Your task to perform on an android device: open app "DoorDash - Food Delivery" (install if not already installed), go to login, and select forgot password Image 0: 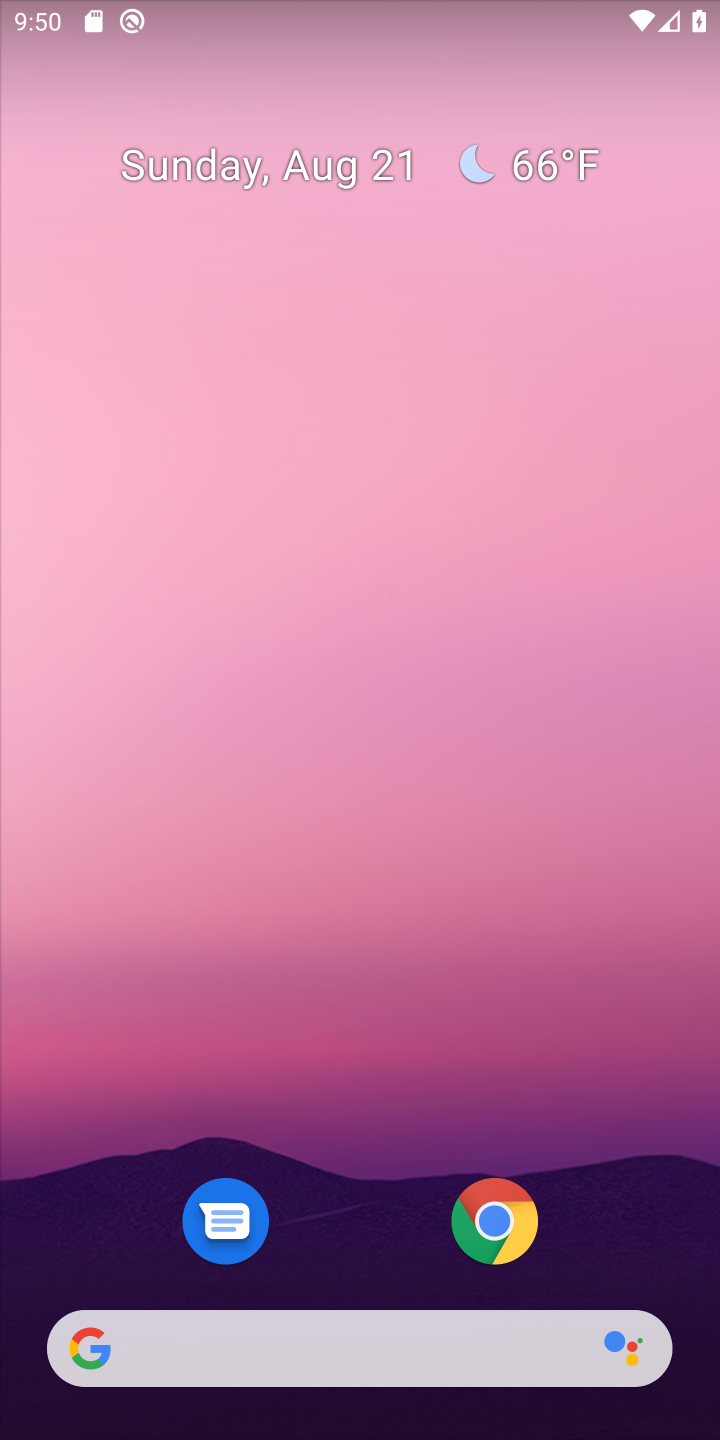
Step 0: drag from (354, 1136) to (491, 1)
Your task to perform on an android device: open app "DoorDash - Food Delivery" (install if not already installed), go to login, and select forgot password Image 1: 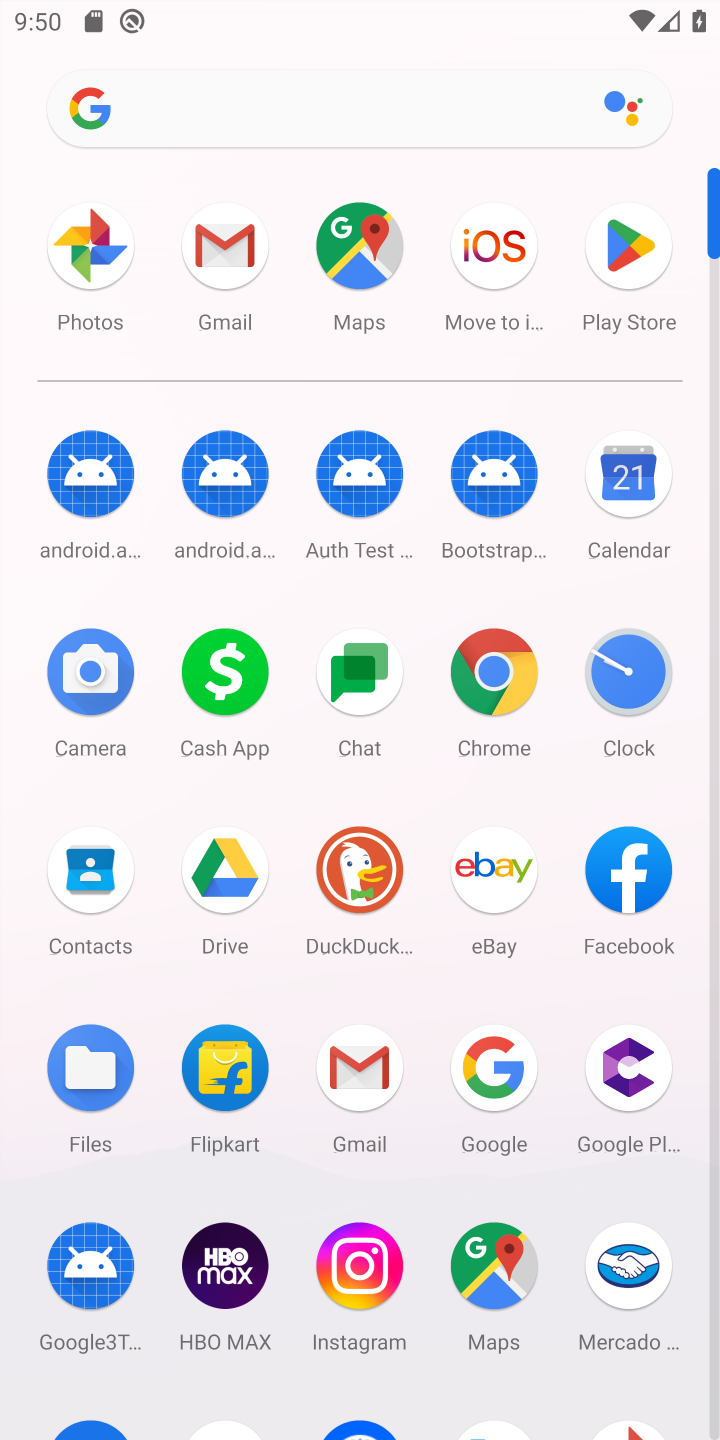
Step 1: click (620, 367)
Your task to perform on an android device: open app "DoorDash - Food Delivery" (install if not already installed), go to login, and select forgot password Image 2: 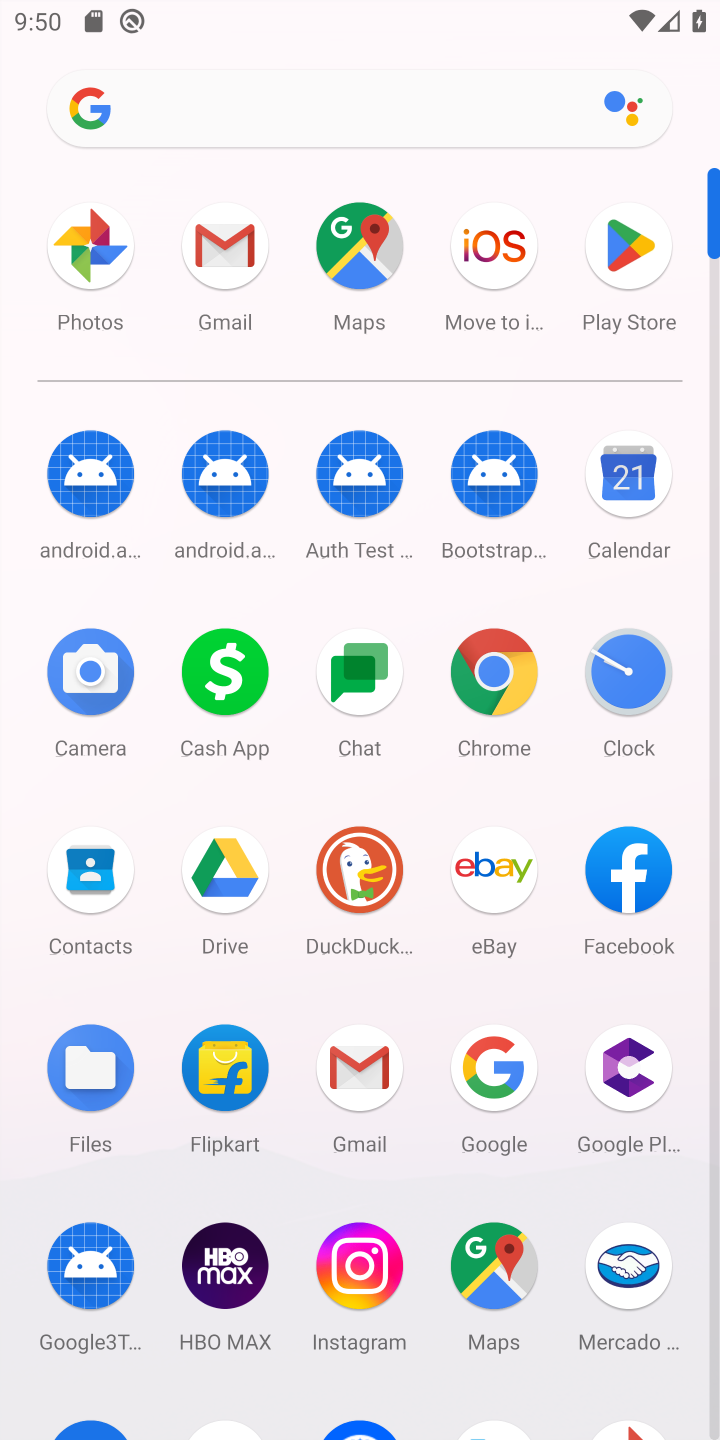
Step 2: click (617, 293)
Your task to perform on an android device: open app "DoorDash - Food Delivery" (install if not already installed), go to login, and select forgot password Image 3: 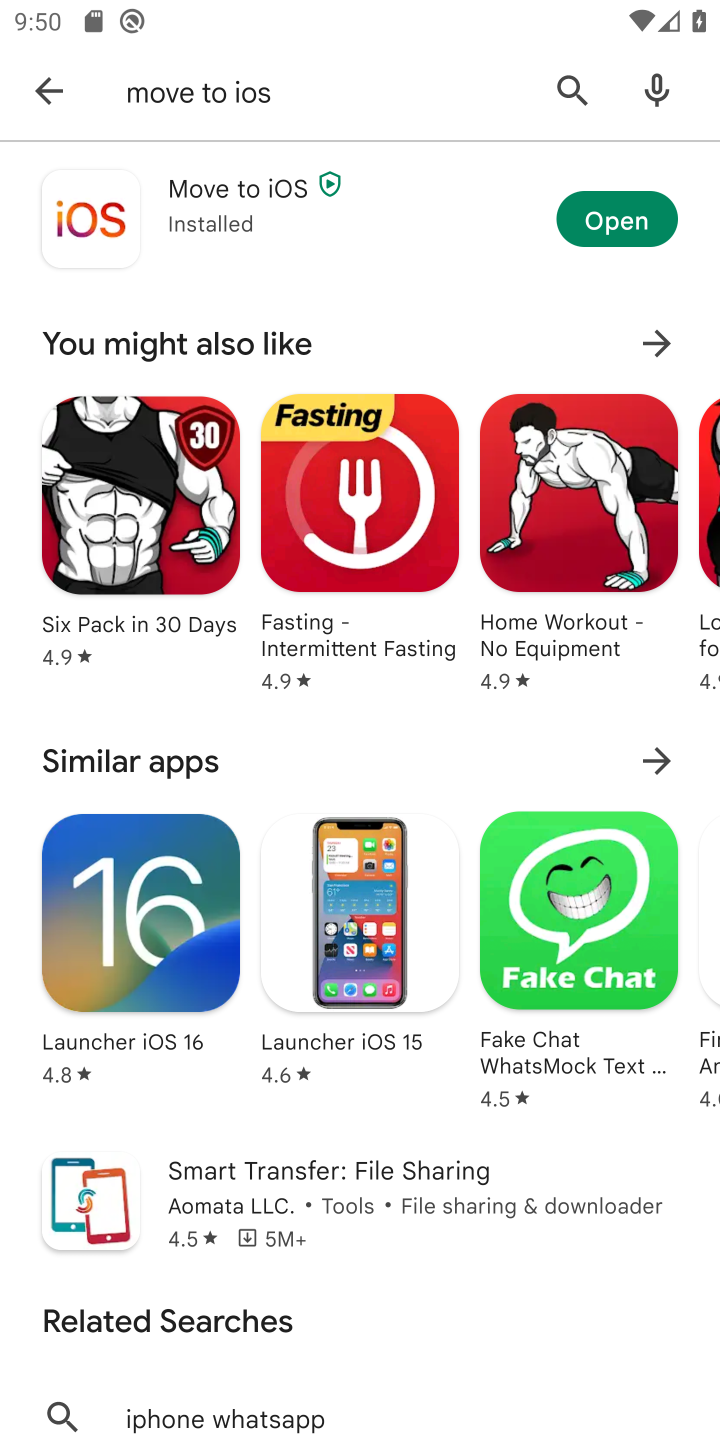
Step 3: click (545, 99)
Your task to perform on an android device: open app "DoorDash - Food Delivery" (install if not already installed), go to login, and select forgot password Image 4: 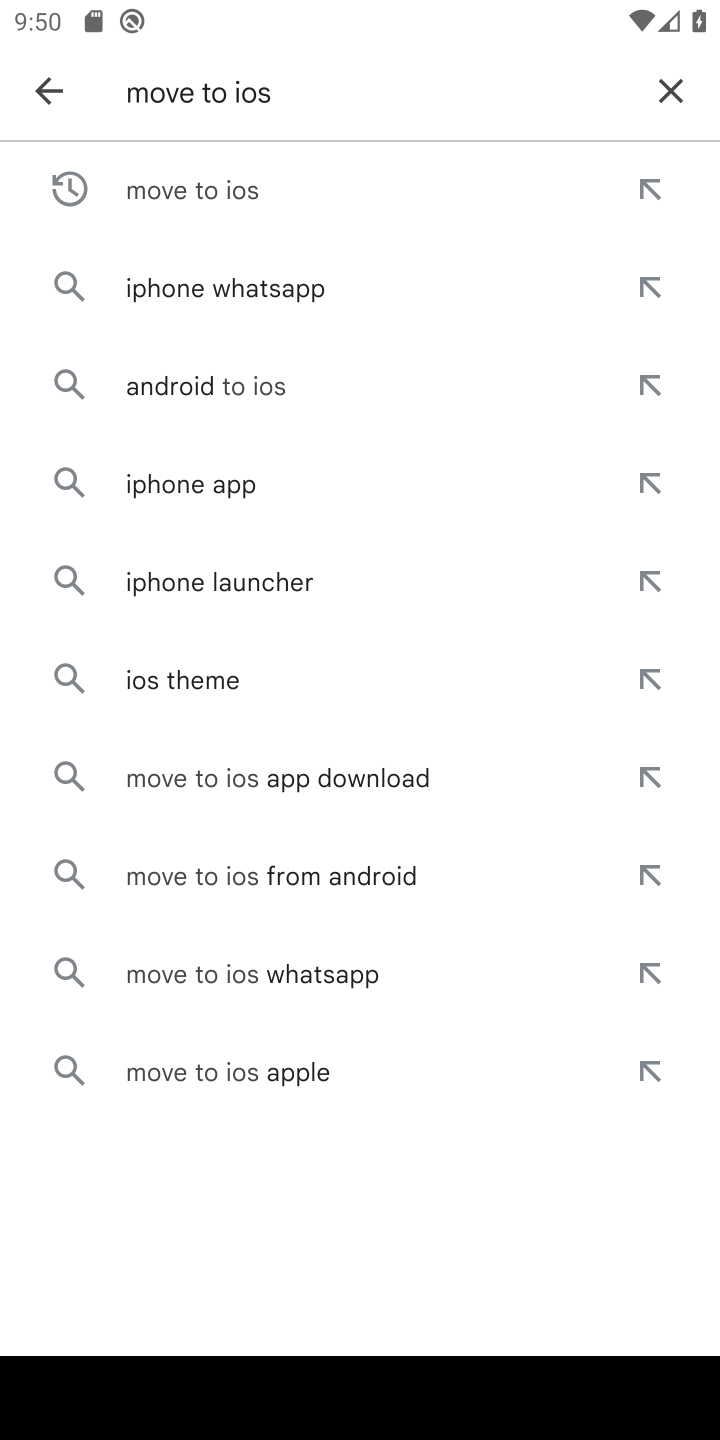
Step 4: click (664, 83)
Your task to perform on an android device: open app "DoorDash - Food Delivery" (install if not already installed), go to login, and select forgot password Image 5: 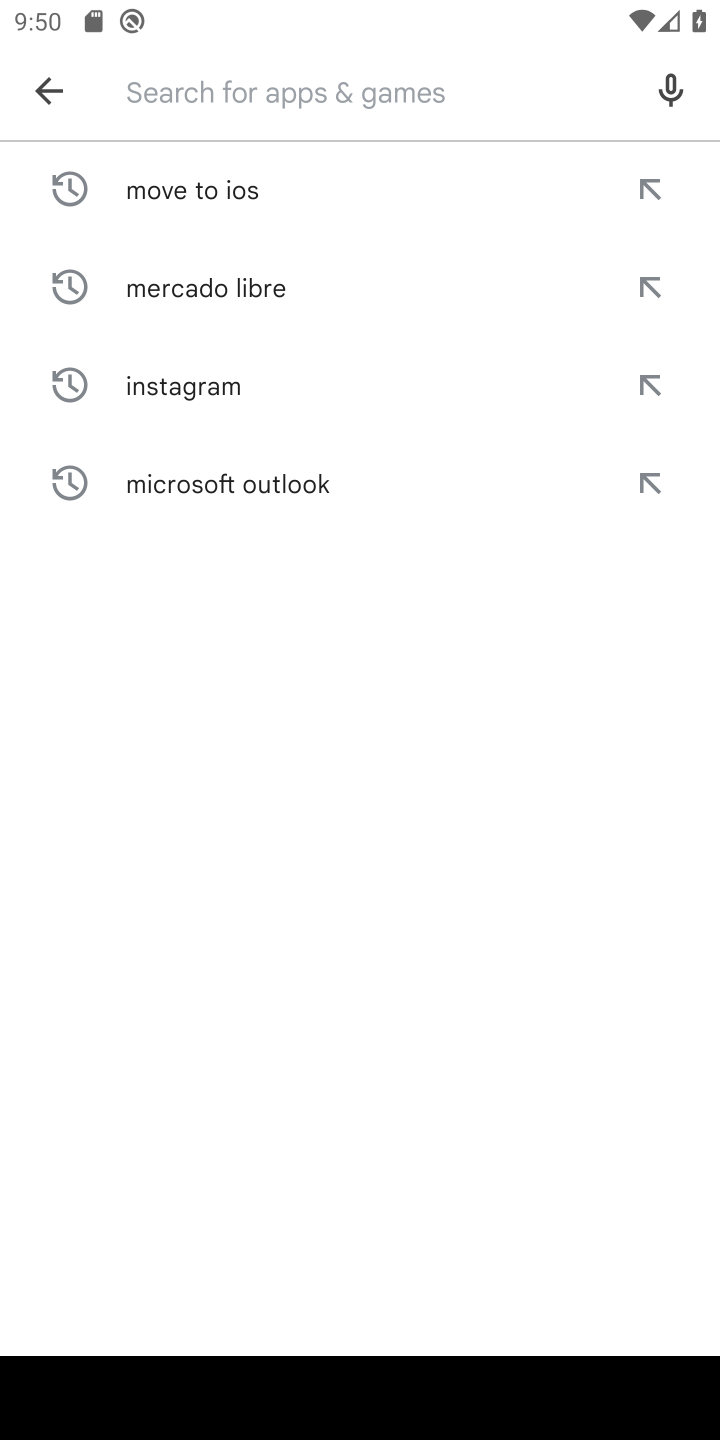
Step 5: type "DoorDash - Food Delivery"
Your task to perform on an android device: open app "DoorDash - Food Delivery" (install if not already installed), go to login, and select forgot password Image 6: 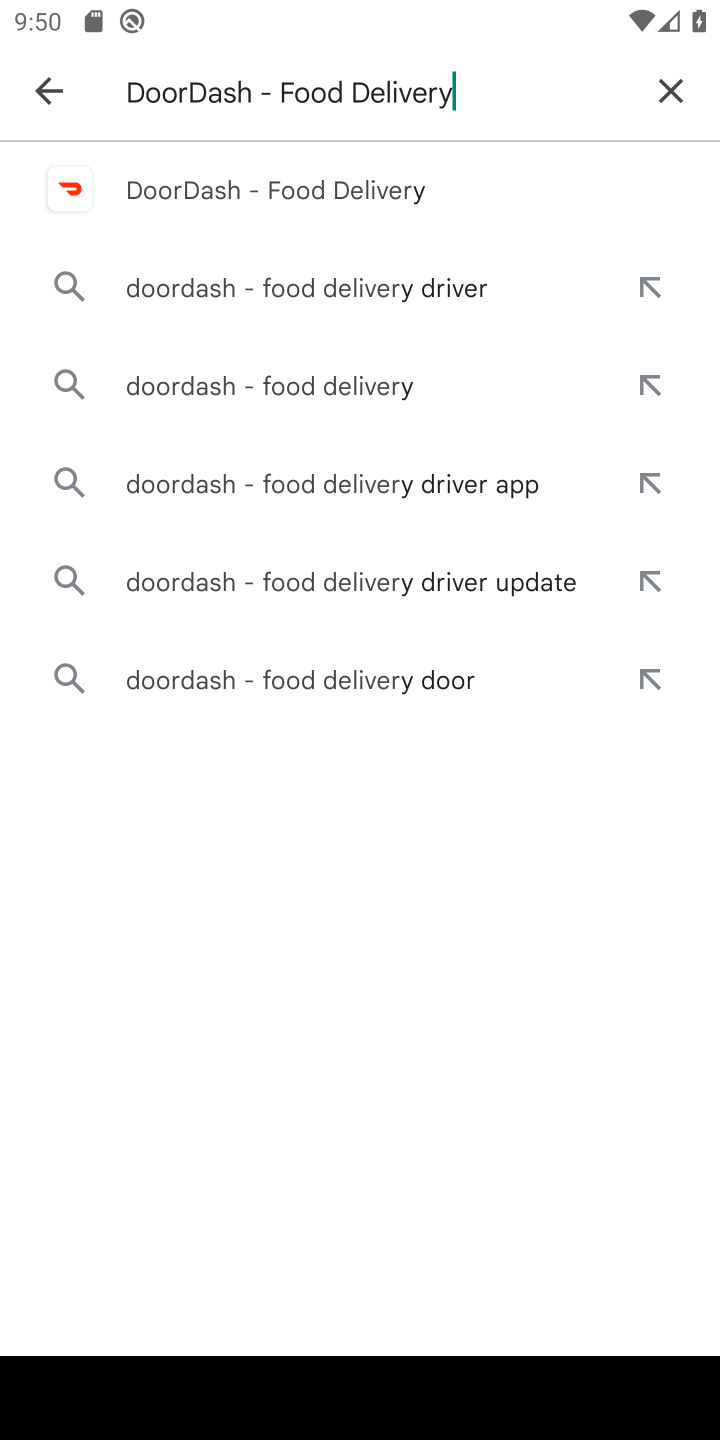
Step 6: type ""
Your task to perform on an android device: open app "DoorDash - Food Delivery" (install if not already installed), go to login, and select forgot password Image 7: 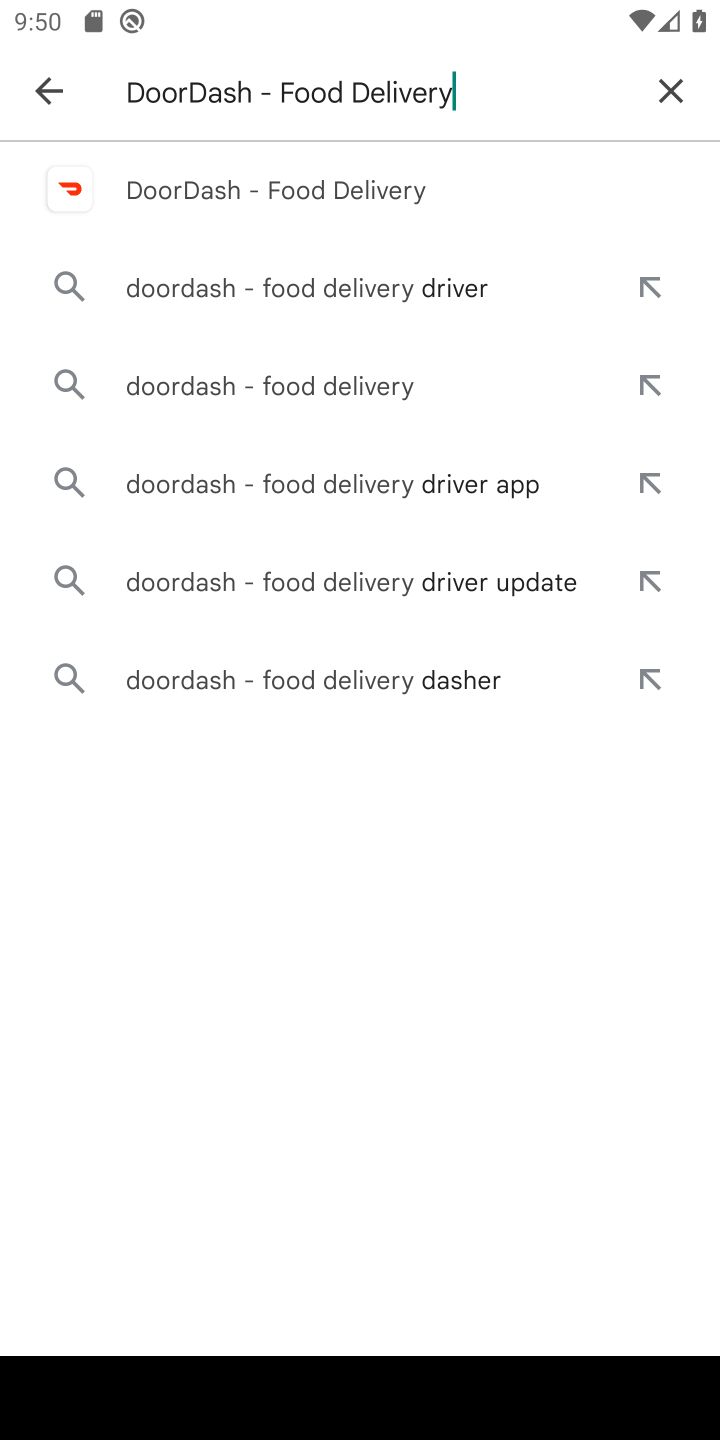
Step 7: click (299, 202)
Your task to perform on an android device: open app "DoorDash - Food Delivery" (install if not already installed), go to login, and select forgot password Image 8: 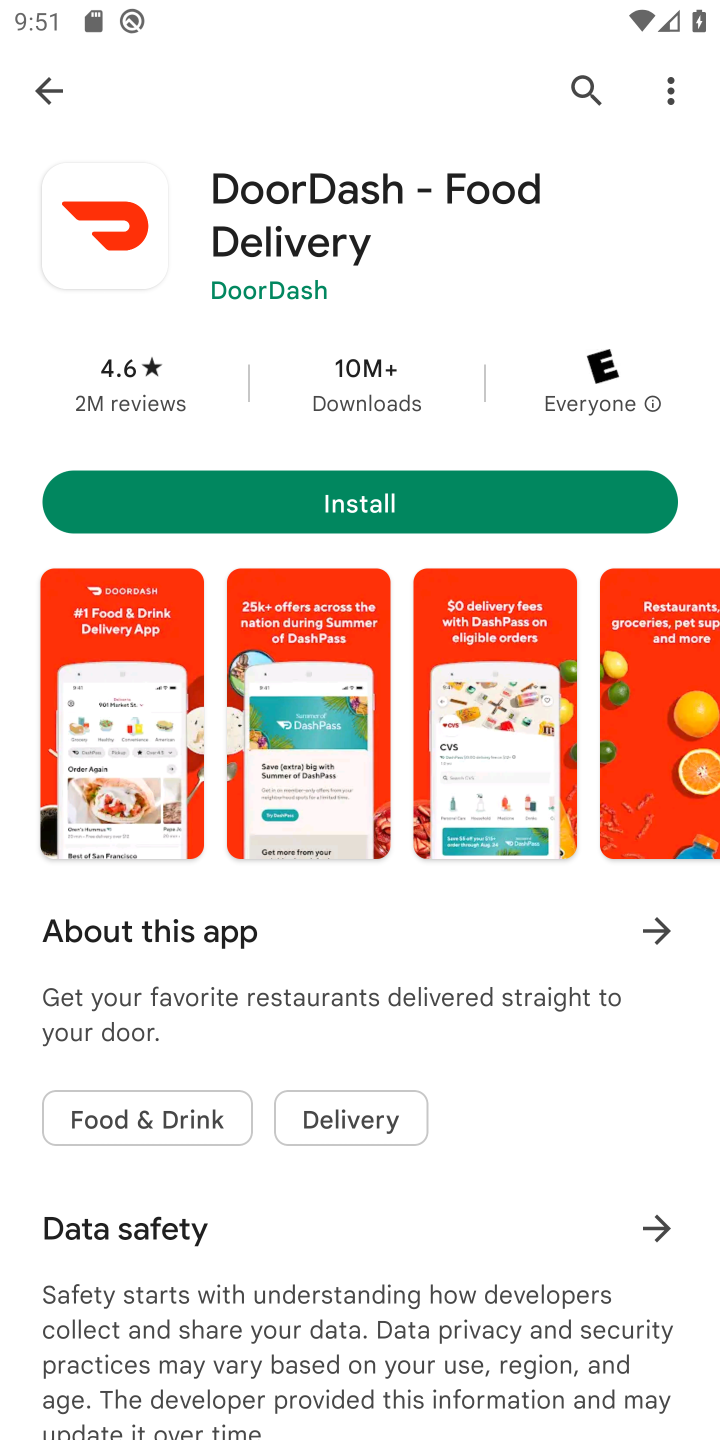
Step 8: click (453, 514)
Your task to perform on an android device: open app "DoorDash - Food Delivery" (install if not already installed), go to login, and select forgot password Image 9: 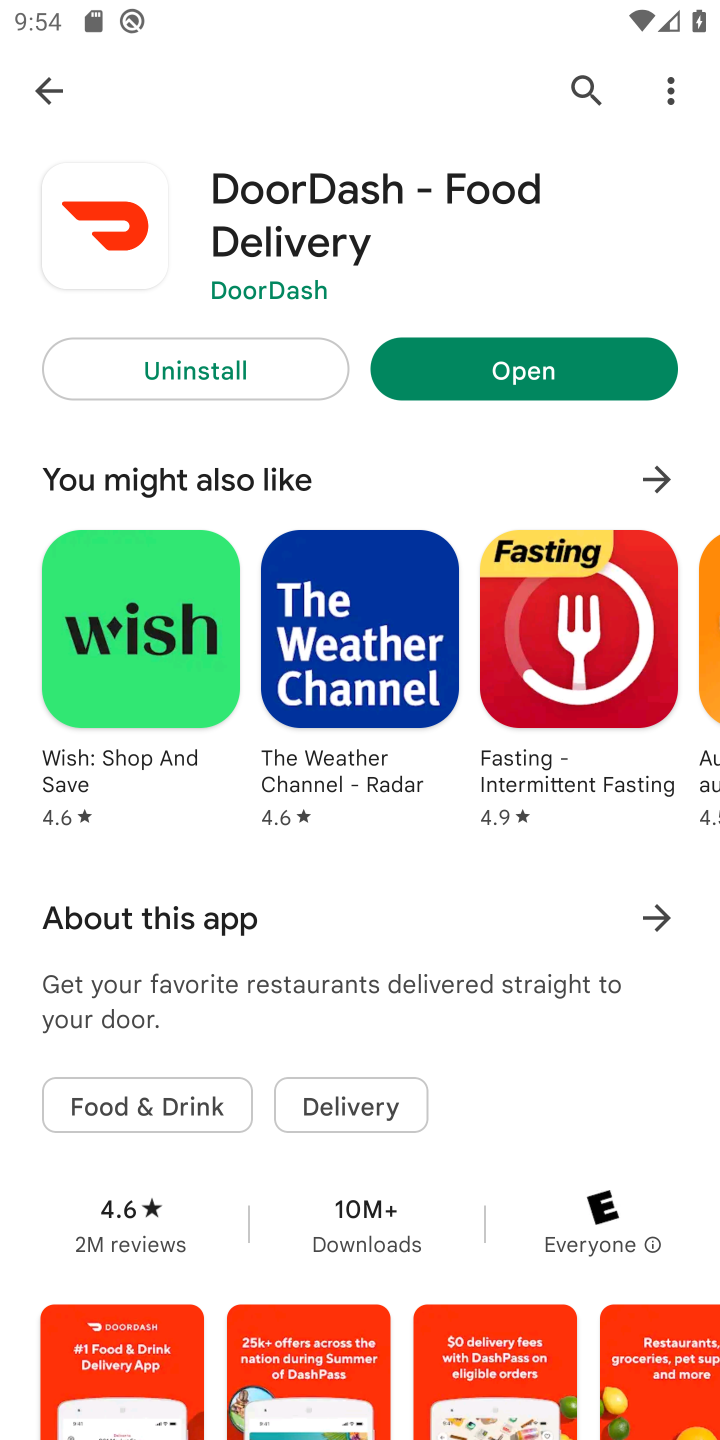
Step 9: click (546, 373)
Your task to perform on an android device: open app "DoorDash - Food Delivery" (install if not already installed), go to login, and select forgot password Image 10: 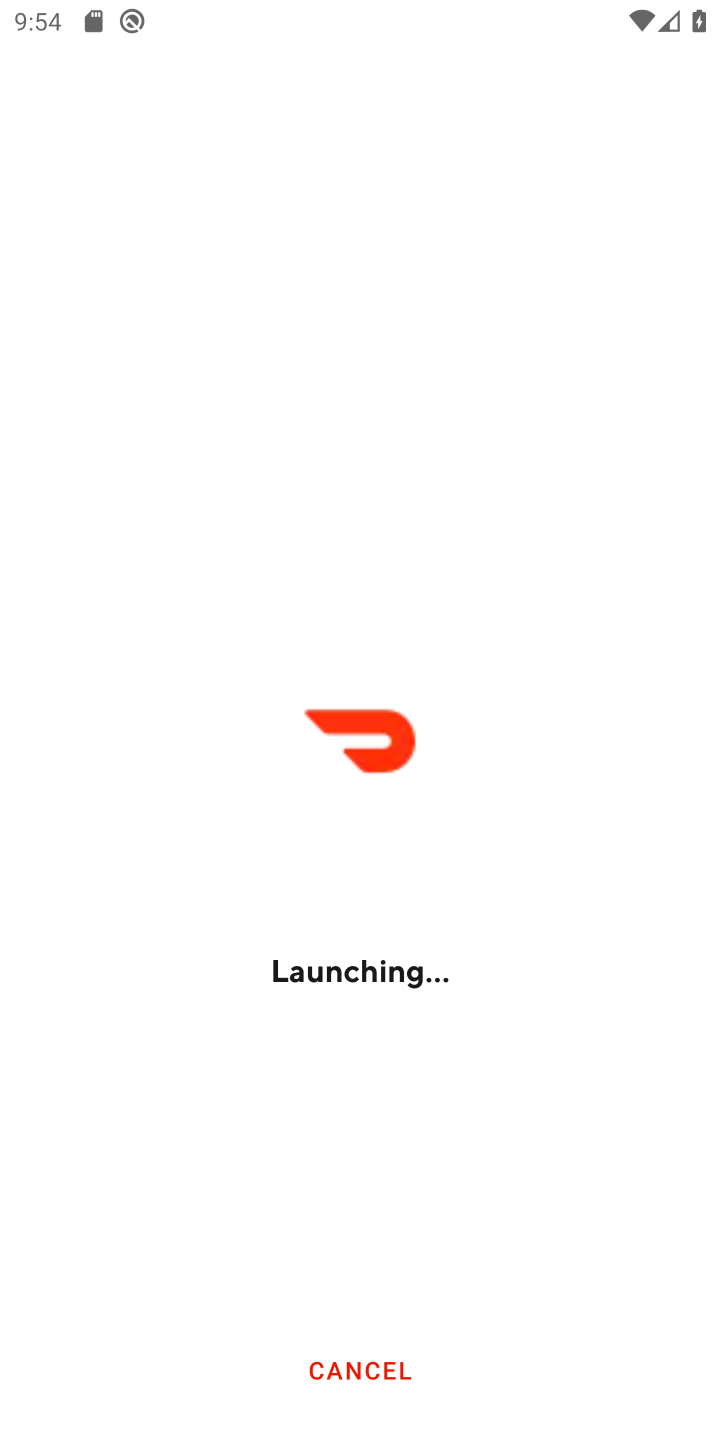
Step 10: task complete